Your task to perform on an android device: open a bookmark in the chrome app Image 0: 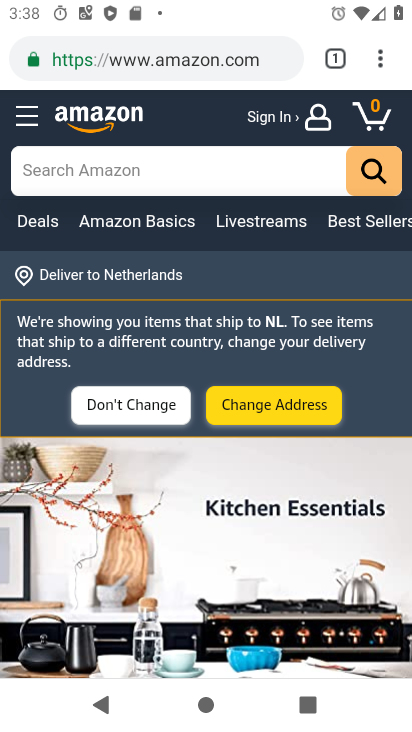
Step 0: press home button
Your task to perform on an android device: open a bookmark in the chrome app Image 1: 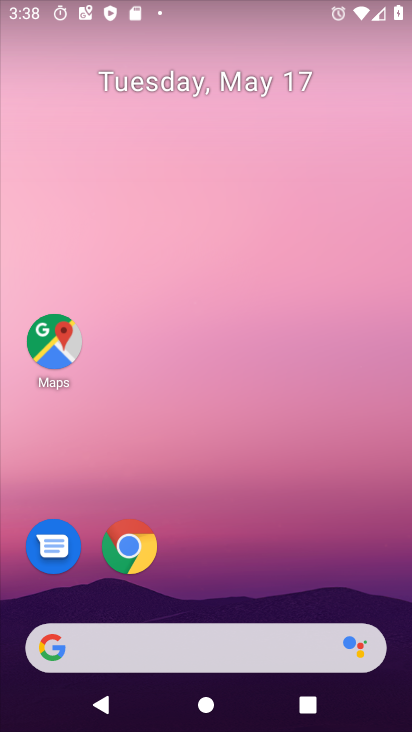
Step 1: click (148, 547)
Your task to perform on an android device: open a bookmark in the chrome app Image 2: 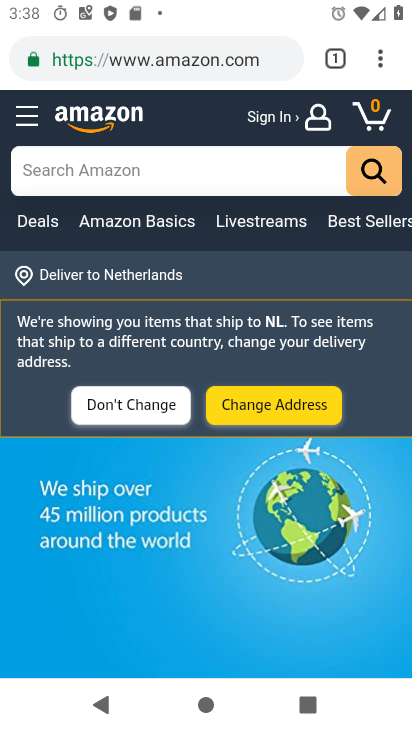
Step 2: click (382, 60)
Your task to perform on an android device: open a bookmark in the chrome app Image 3: 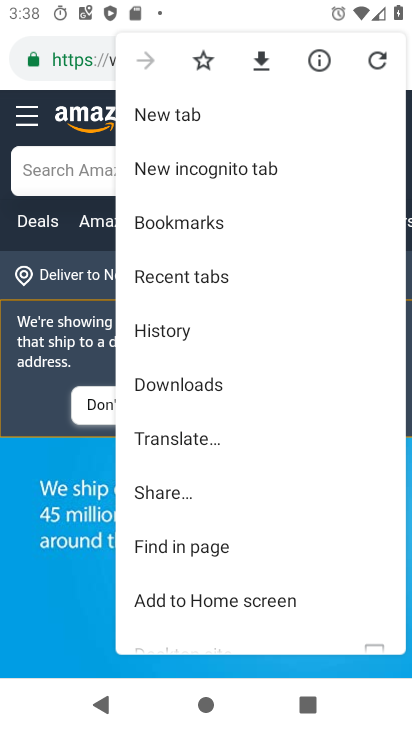
Step 3: click (247, 221)
Your task to perform on an android device: open a bookmark in the chrome app Image 4: 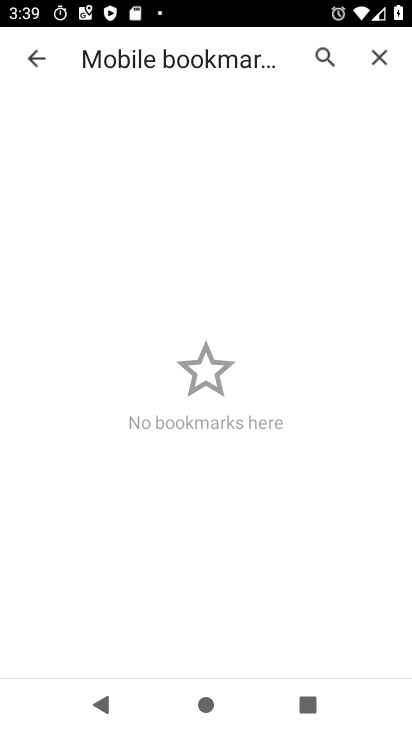
Step 4: task complete